Your task to perform on an android device: toggle javascript in the chrome app Image 0: 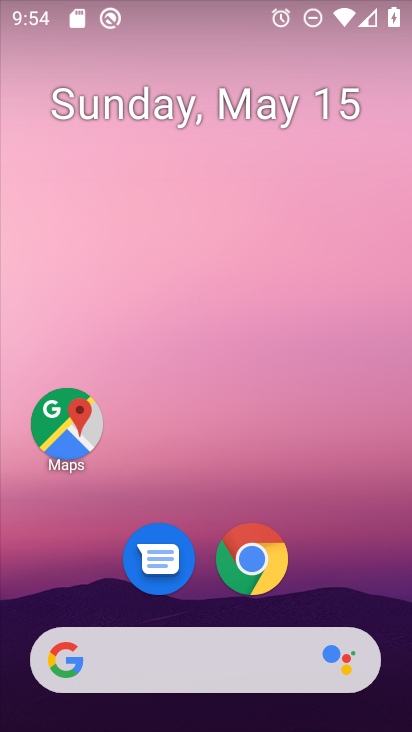
Step 0: click (264, 556)
Your task to perform on an android device: toggle javascript in the chrome app Image 1: 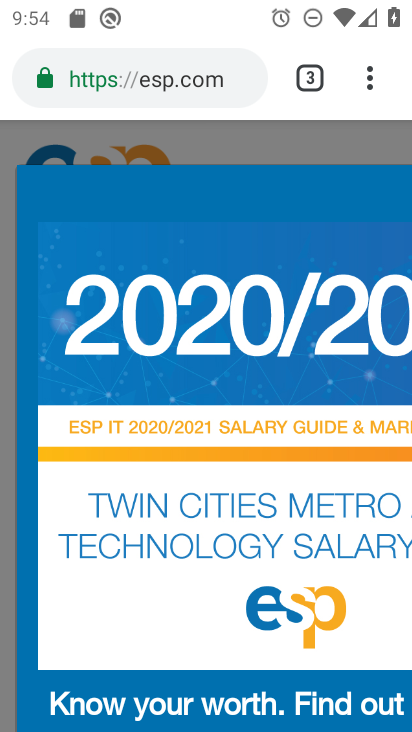
Step 1: click (379, 88)
Your task to perform on an android device: toggle javascript in the chrome app Image 2: 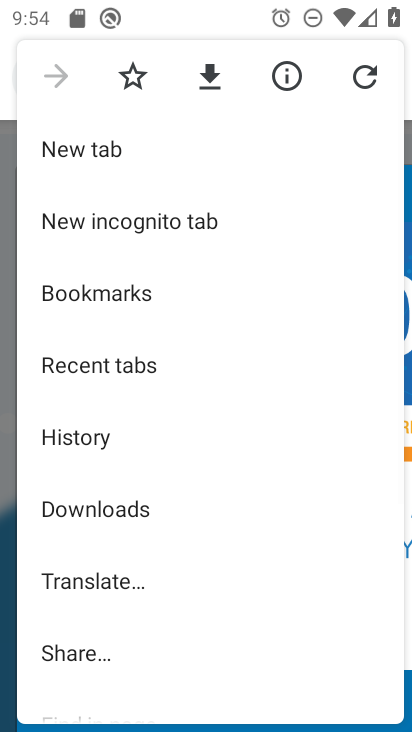
Step 2: drag from (239, 568) to (252, 233)
Your task to perform on an android device: toggle javascript in the chrome app Image 3: 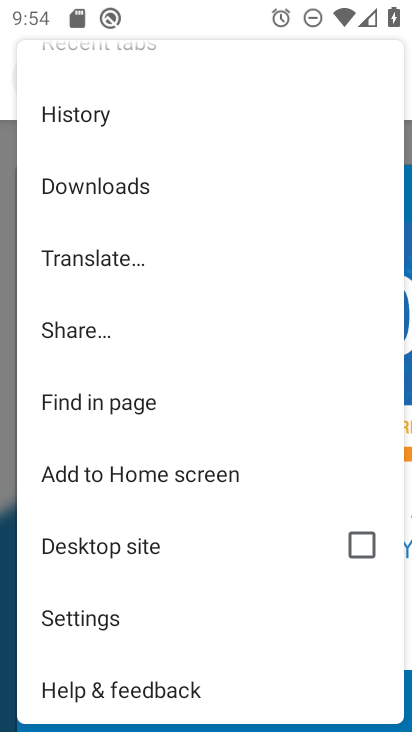
Step 3: click (161, 616)
Your task to perform on an android device: toggle javascript in the chrome app Image 4: 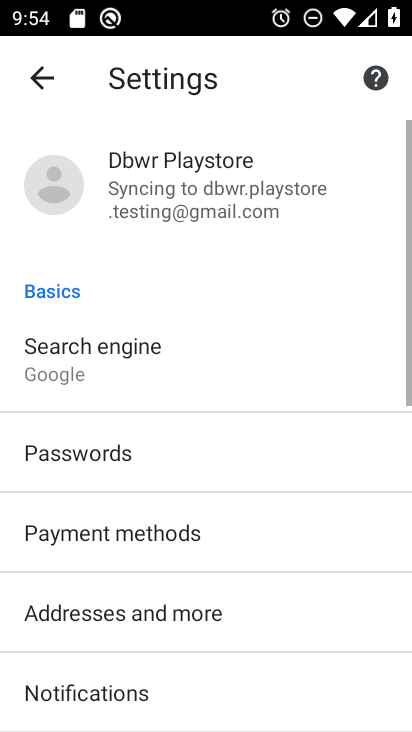
Step 4: drag from (161, 616) to (196, 218)
Your task to perform on an android device: toggle javascript in the chrome app Image 5: 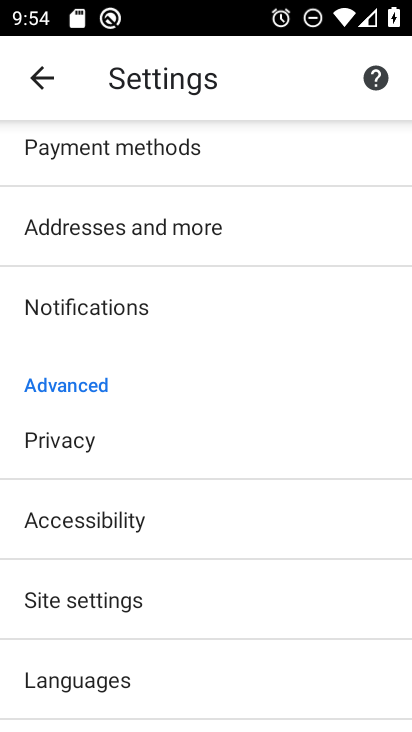
Step 5: drag from (243, 619) to (261, 338)
Your task to perform on an android device: toggle javascript in the chrome app Image 6: 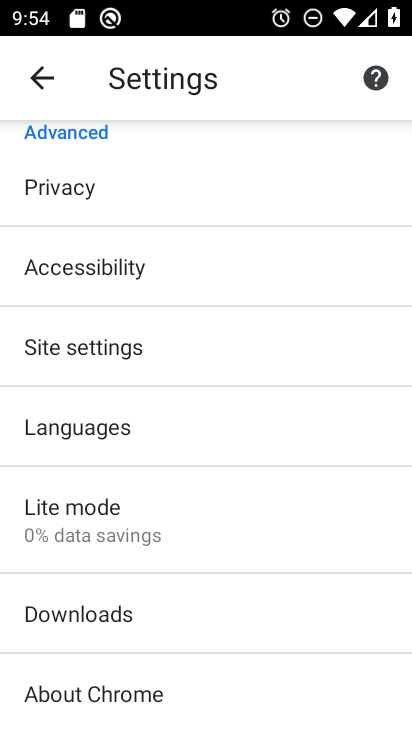
Step 6: click (224, 324)
Your task to perform on an android device: toggle javascript in the chrome app Image 7: 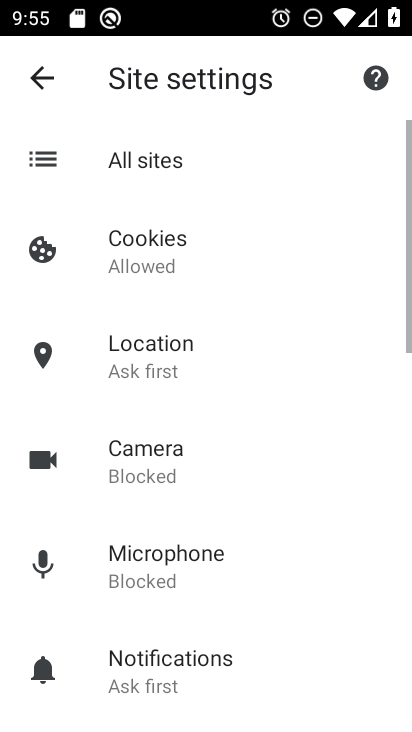
Step 7: drag from (221, 605) to (240, 326)
Your task to perform on an android device: toggle javascript in the chrome app Image 8: 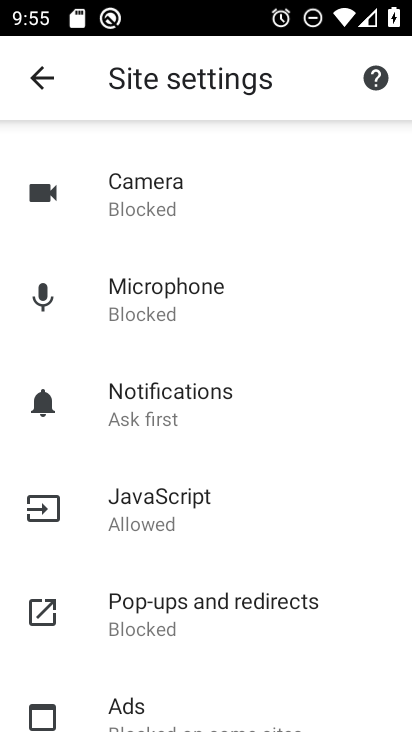
Step 8: click (191, 511)
Your task to perform on an android device: toggle javascript in the chrome app Image 9: 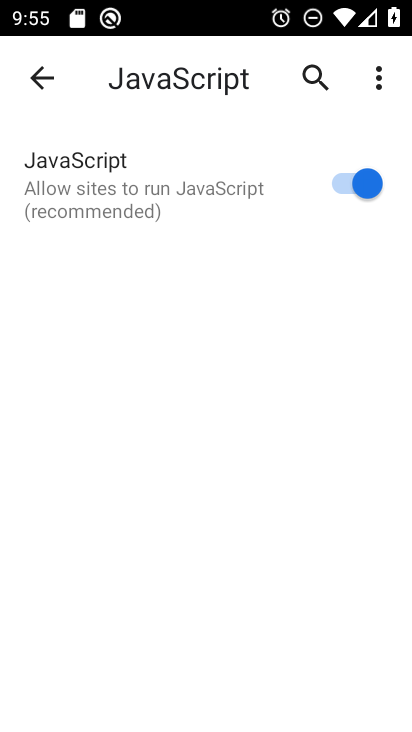
Step 9: click (340, 183)
Your task to perform on an android device: toggle javascript in the chrome app Image 10: 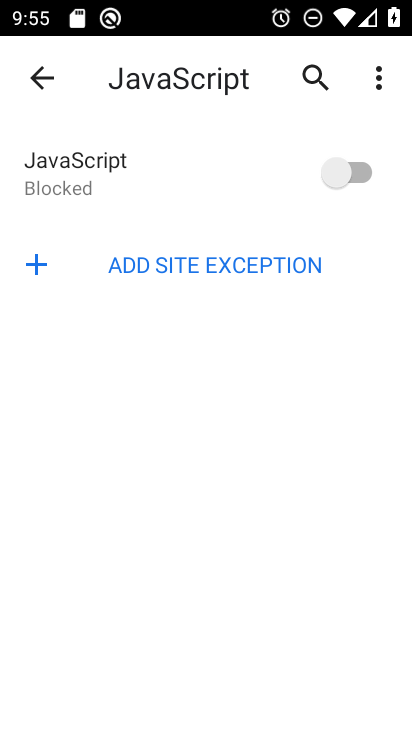
Step 10: click (340, 183)
Your task to perform on an android device: toggle javascript in the chrome app Image 11: 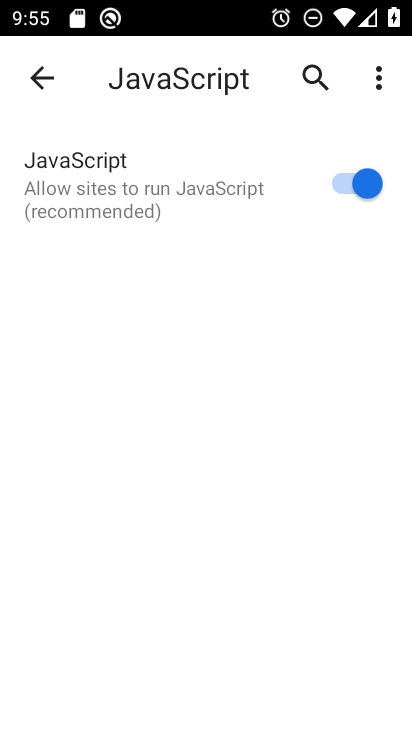
Step 11: click (354, 172)
Your task to perform on an android device: toggle javascript in the chrome app Image 12: 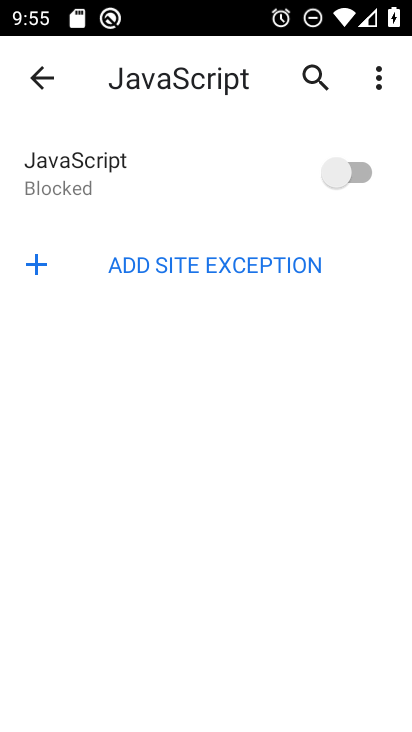
Step 12: task complete